Your task to perform on an android device: Go to Yahoo.com Image 0: 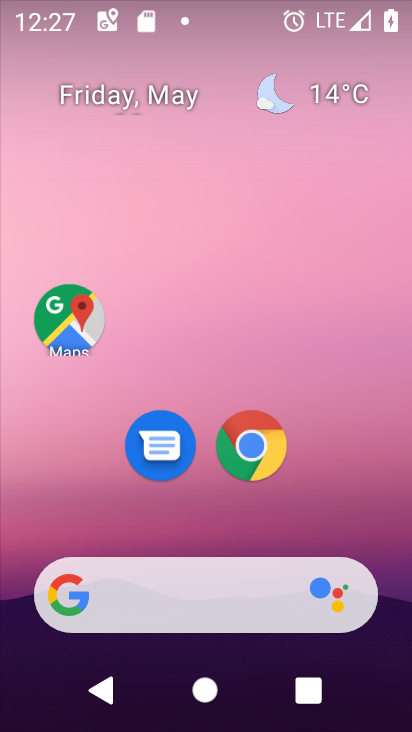
Step 0: click (259, 461)
Your task to perform on an android device: Go to Yahoo.com Image 1: 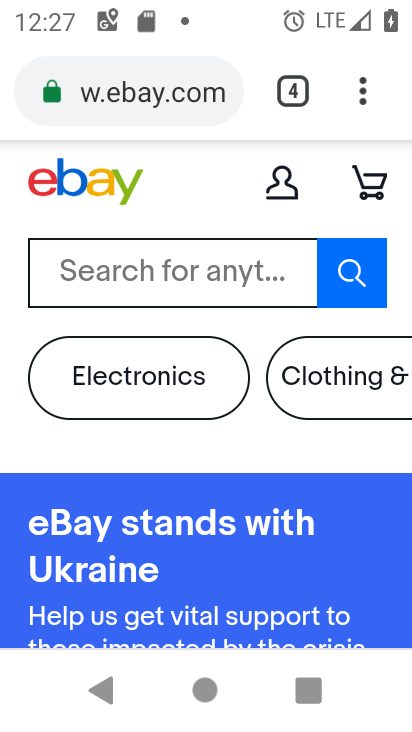
Step 1: click (294, 81)
Your task to perform on an android device: Go to Yahoo.com Image 2: 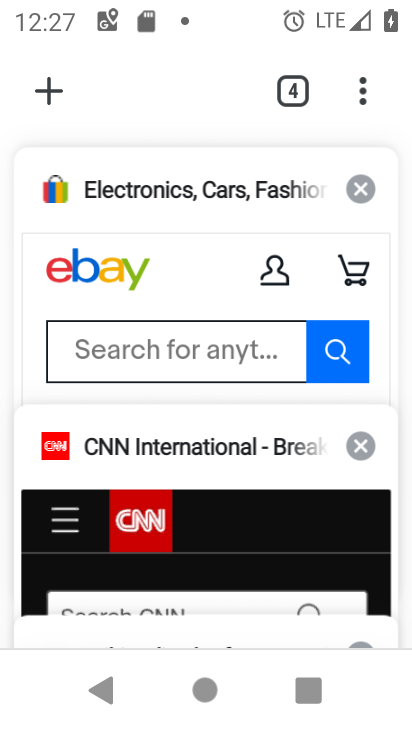
Step 2: click (357, 190)
Your task to perform on an android device: Go to Yahoo.com Image 3: 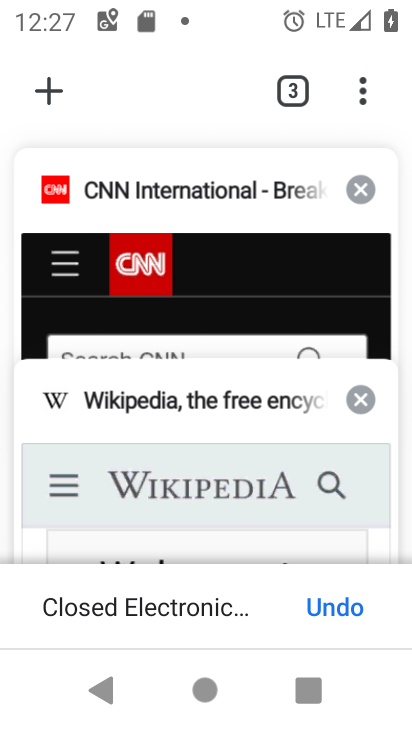
Step 3: click (357, 190)
Your task to perform on an android device: Go to Yahoo.com Image 4: 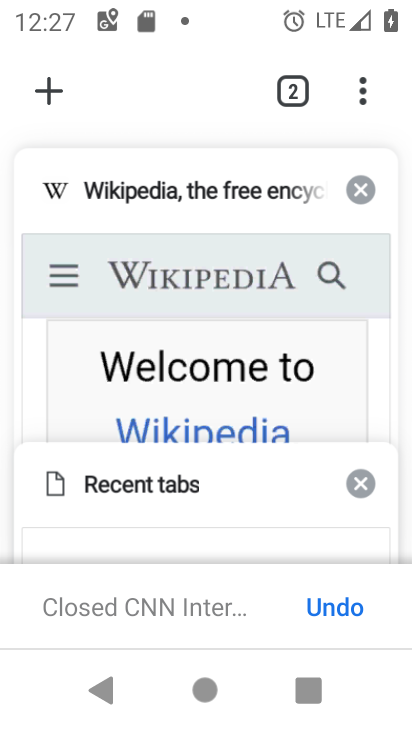
Step 4: click (357, 190)
Your task to perform on an android device: Go to Yahoo.com Image 5: 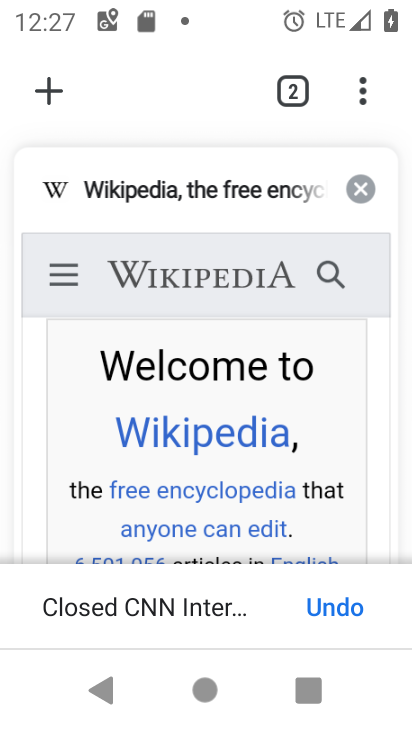
Step 5: click (357, 190)
Your task to perform on an android device: Go to Yahoo.com Image 6: 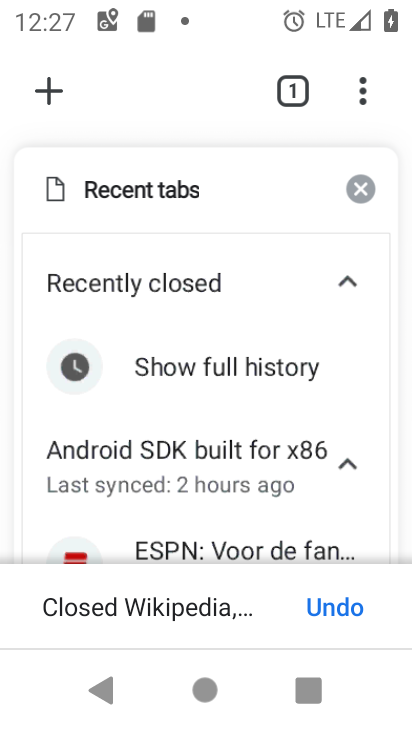
Step 6: click (369, 185)
Your task to perform on an android device: Go to Yahoo.com Image 7: 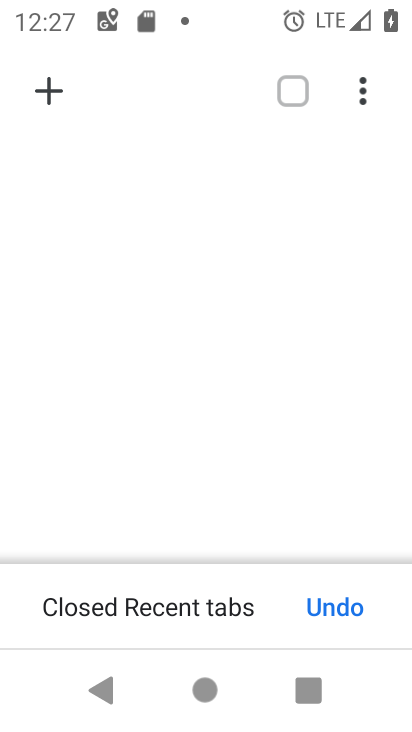
Step 7: click (39, 92)
Your task to perform on an android device: Go to Yahoo.com Image 8: 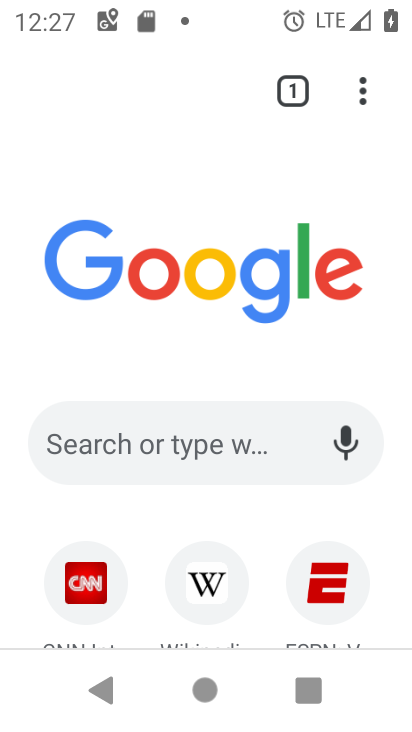
Step 8: drag from (33, 472) to (203, 107)
Your task to perform on an android device: Go to Yahoo.com Image 9: 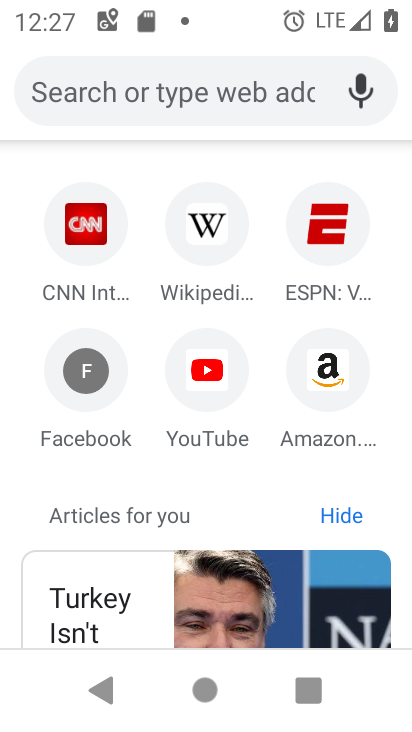
Step 9: click (115, 68)
Your task to perform on an android device: Go to Yahoo.com Image 10: 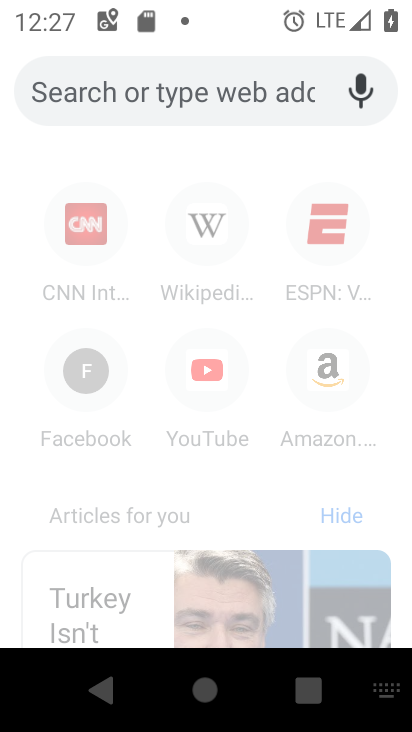
Step 10: type "Yahoo.com"
Your task to perform on an android device: Go to Yahoo.com Image 11: 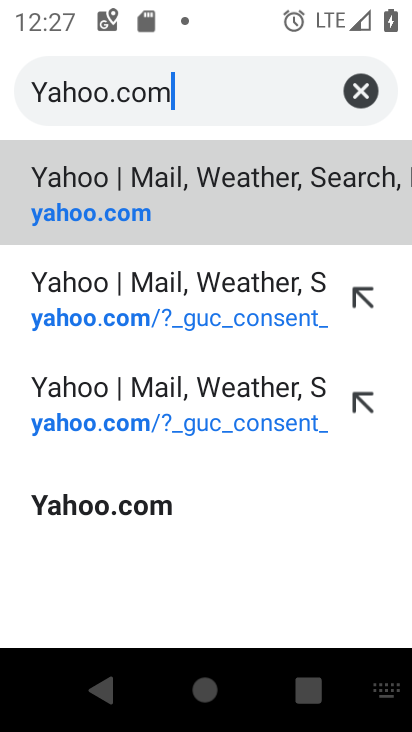
Step 11: type ""
Your task to perform on an android device: Go to Yahoo.com Image 12: 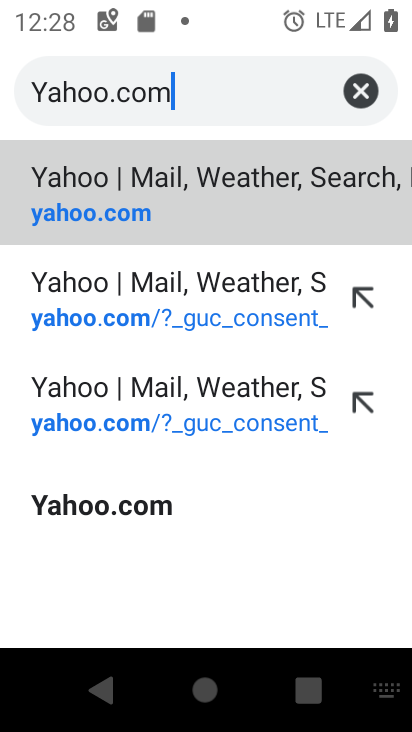
Step 12: click (92, 198)
Your task to perform on an android device: Go to Yahoo.com Image 13: 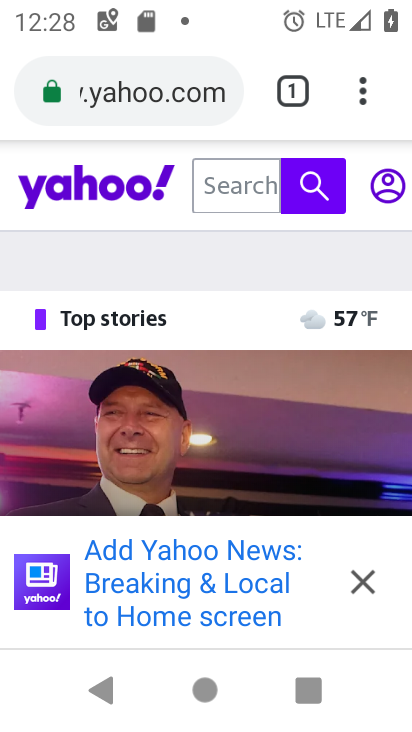
Step 13: click (362, 583)
Your task to perform on an android device: Go to Yahoo.com Image 14: 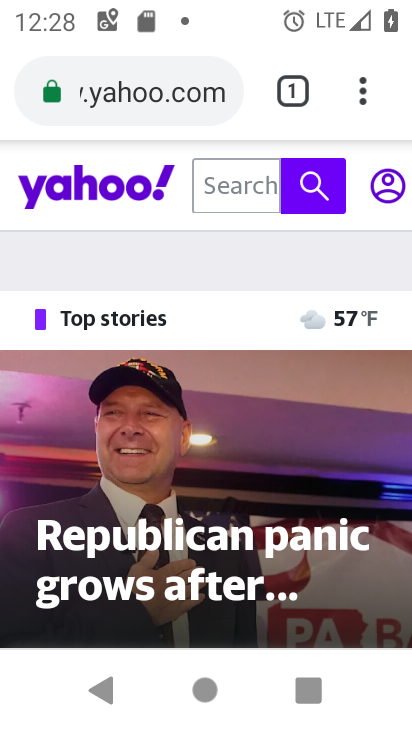
Step 14: task complete